Your task to perform on an android device: Open Google Maps Image 0: 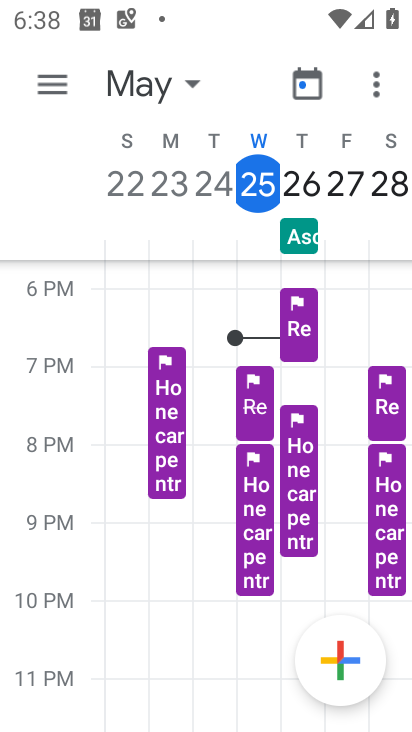
Step 0: press home button
Your task to perform on an android device: Open Google Maps Image 1: 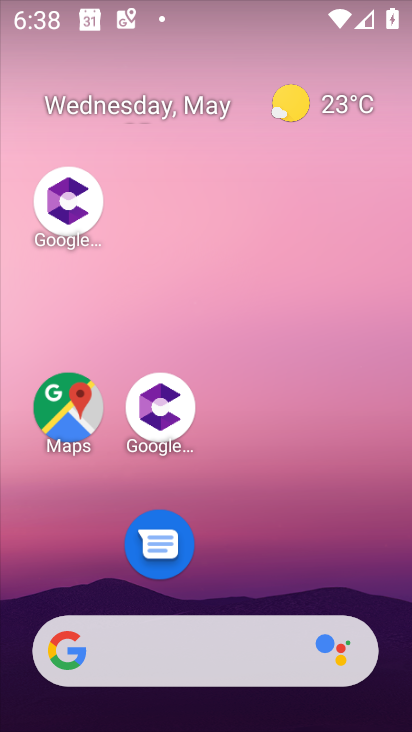
Step 1: click (65, 407)
Your task to perform on an android device: Open Google Maps Image 2: 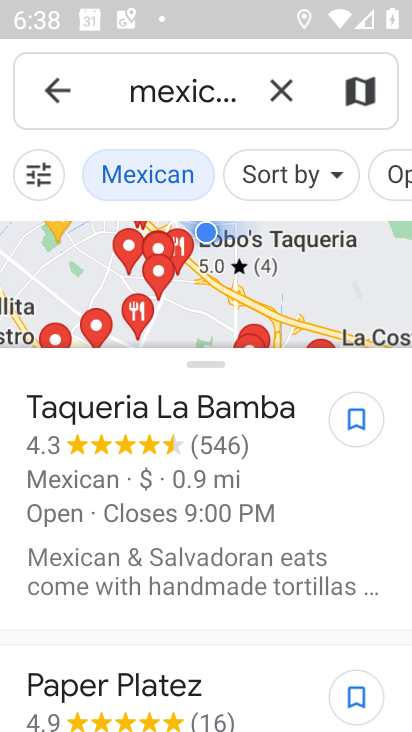
Step 2: task complete